Your task to perform on an android device: Go to settings Image 0: 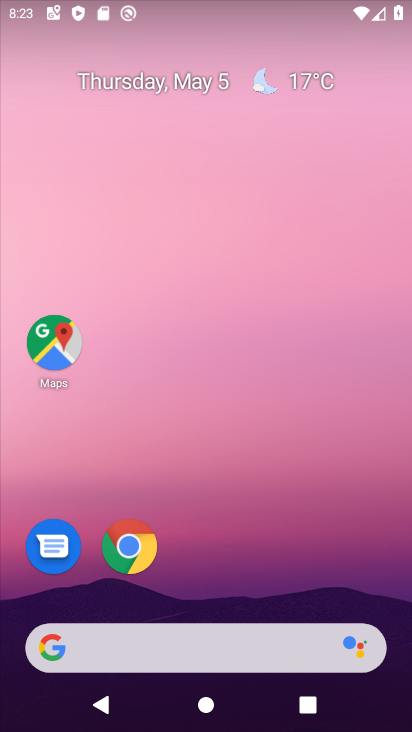
Step 0: drag from (151, 657) to (353, 40)
Your task to perform on an android device: Go to settings Image 1: 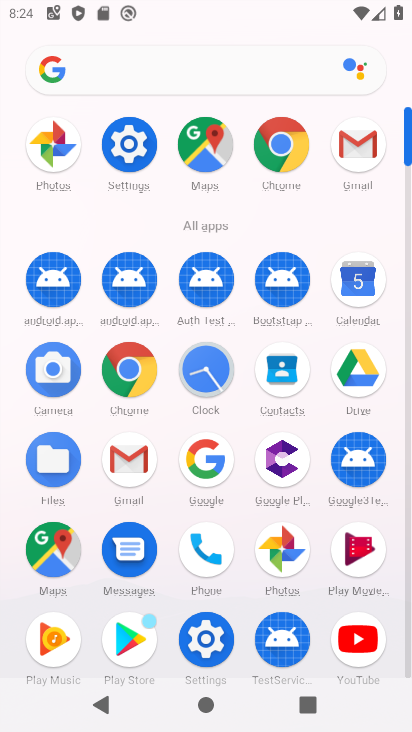
Step 1: click (208, 635)
Your task to perform on an android device: Go to settings Image 2: 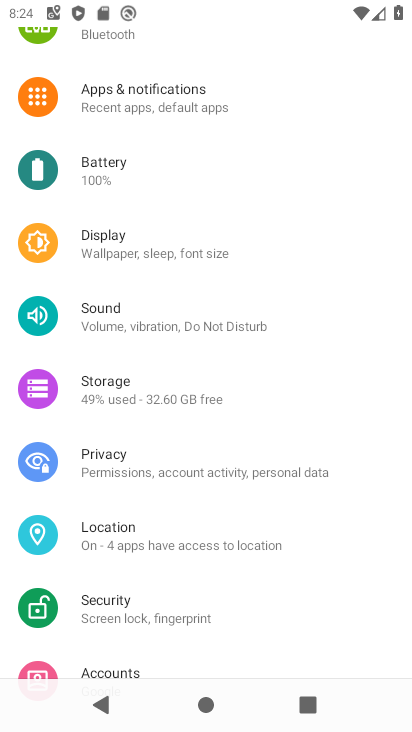
Step 2: task complete